Your task to perform on an android device: see creations saved in the google photos Image 0: 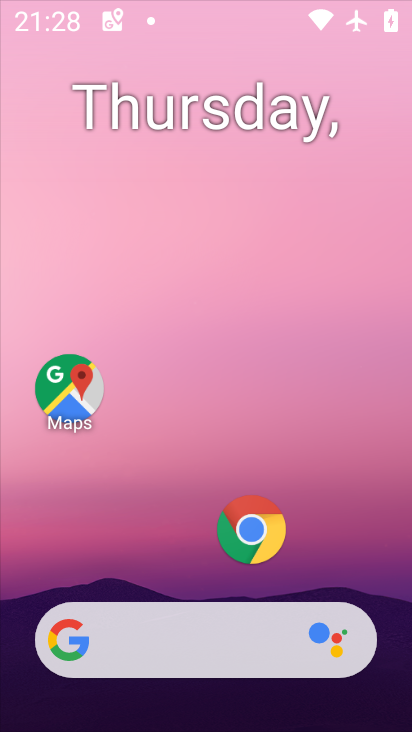
Step 0: press home button
Your task to perform on an android device: see creations saved in the google photos Image 1: 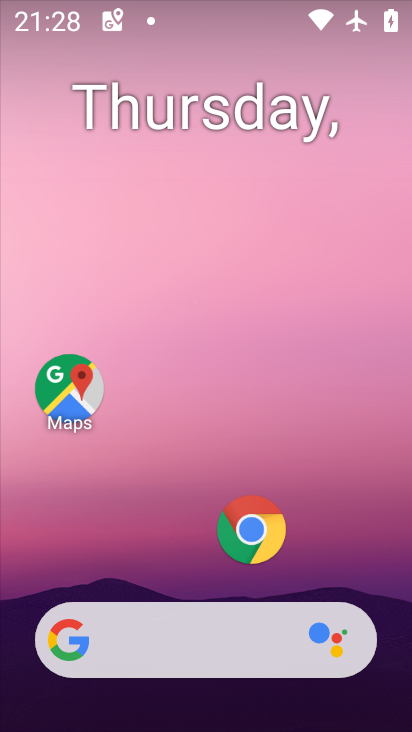
Step 1: drag from (199, 581) to (235, 98)
Your task to perform on an android device: see creations saved in the google photos Image 2: 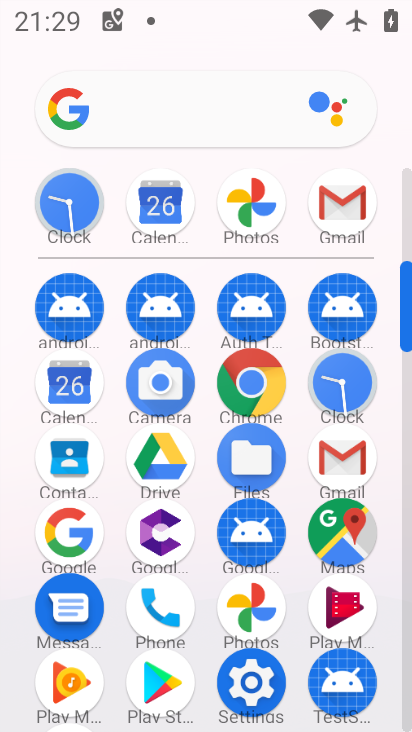
Step 2: click (249, 188)
Your task to perform on an android device: see creations saved in the google photos Image 3: 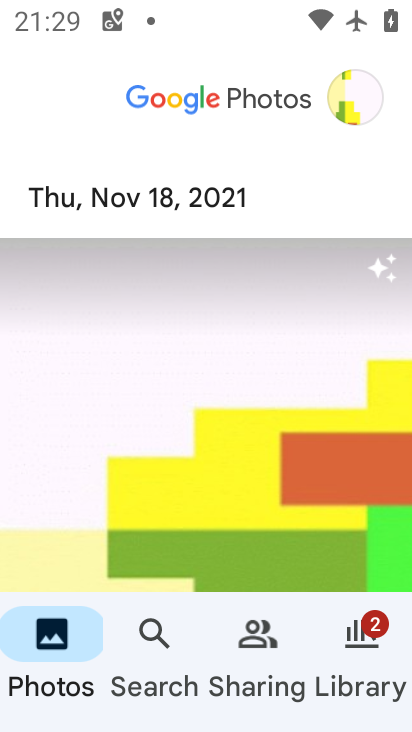
Step 3: click (151, 641)
Your task to perform on an android device: see creations saved in the google photos Image 4: 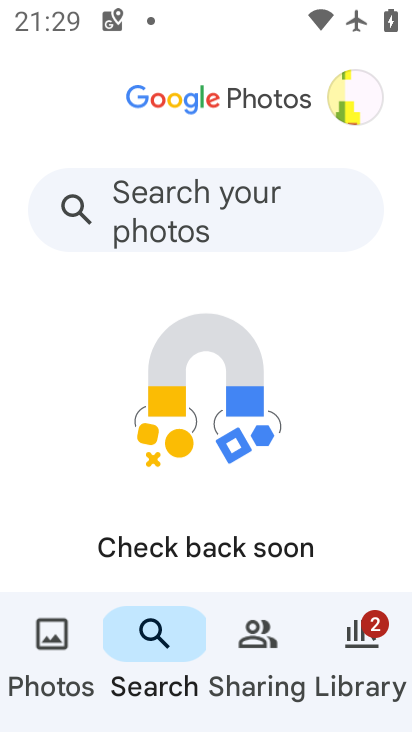
Step 4: click (161, 201)
Your task to perform on an android device: see creations saved in the google photos Image 5: 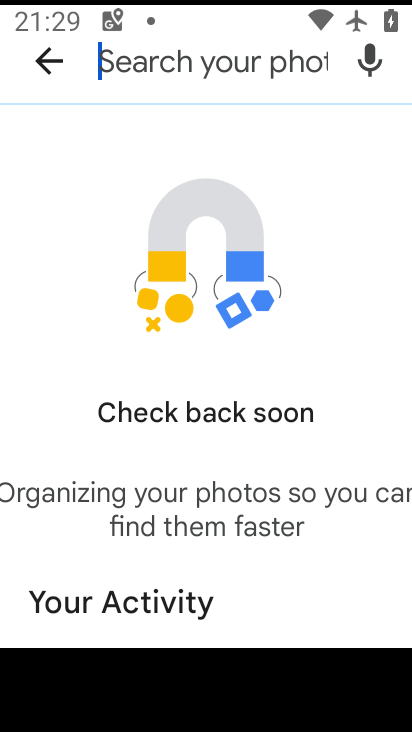
Step 5: type "creation"
Your task to perform on an android device: see creations saved in the google photos Image 6: 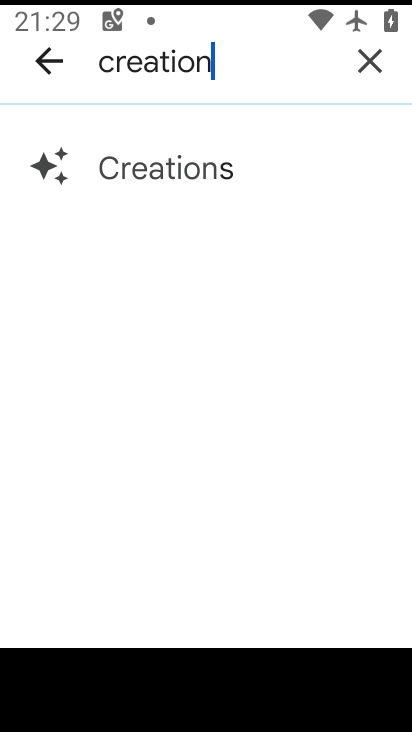
Step 6: click (250, 170)
Your task to perform on an android device: see creations saved in the google photos Image 7: 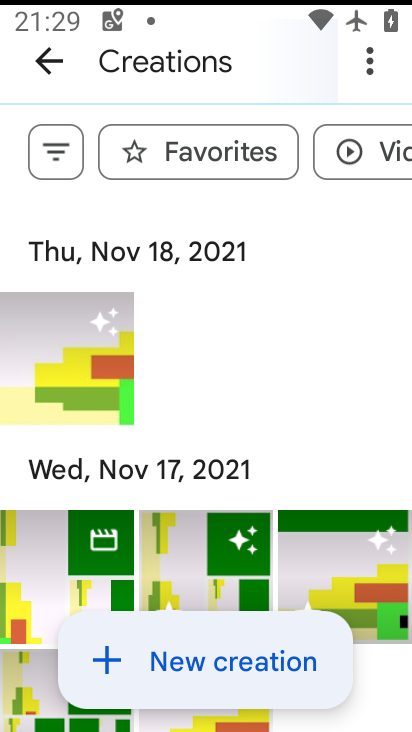
Step 7: task complete